Your task to perform on an android device: clear all cookies in the chrome app Image 0: 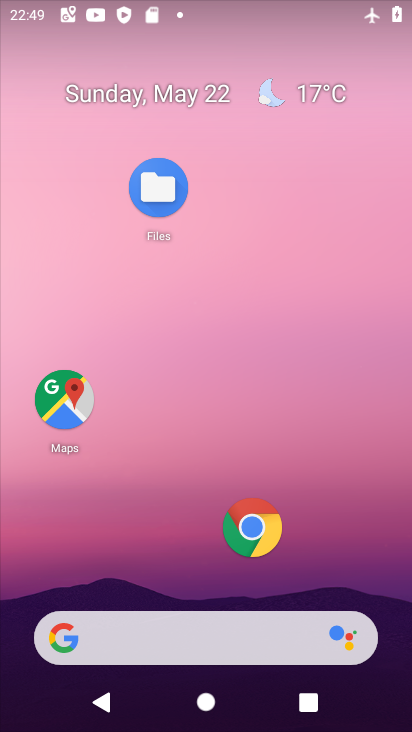
Step 0: click (256, 524)
Your task to perform on an android device: clear all cookies in the chrome app Image 1: 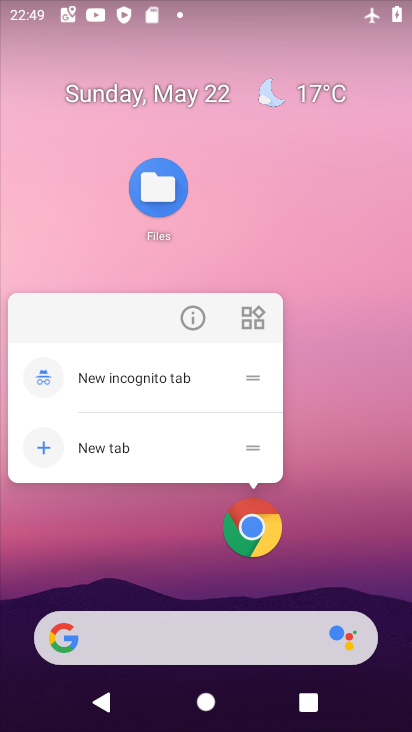
Step 1: click (341, 426)
Your task to perform on an android device: clear all cookies in the chrome app Image 2: 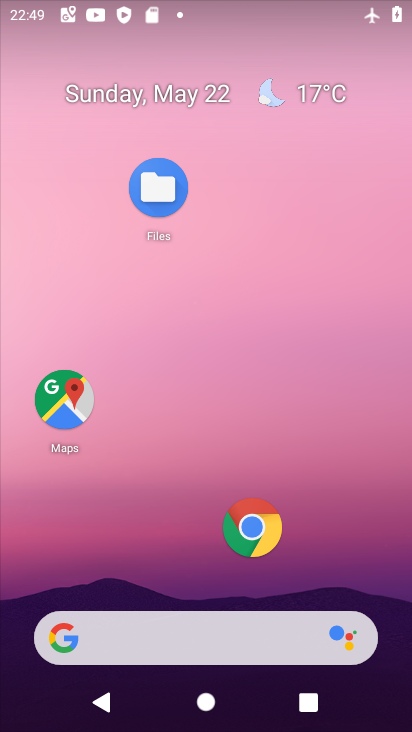
Step 2: click (254, 525)
Your task to perform on an android device: clear all cookies in the chrome app Image 3: 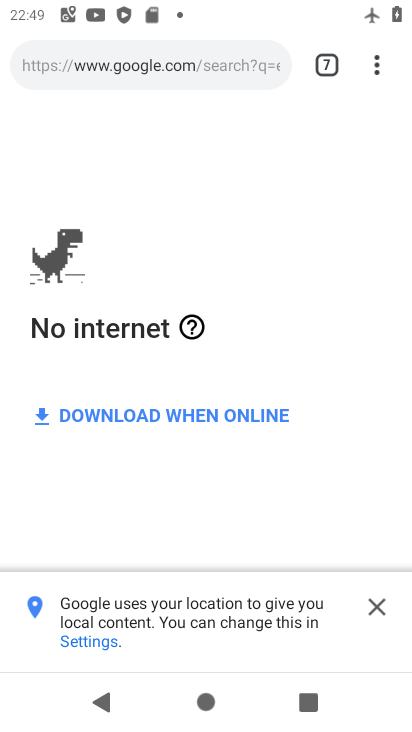
Step 3: click (371, 64)
Your task to perform on an android device: clear all cookies in the chrome app Image 4: 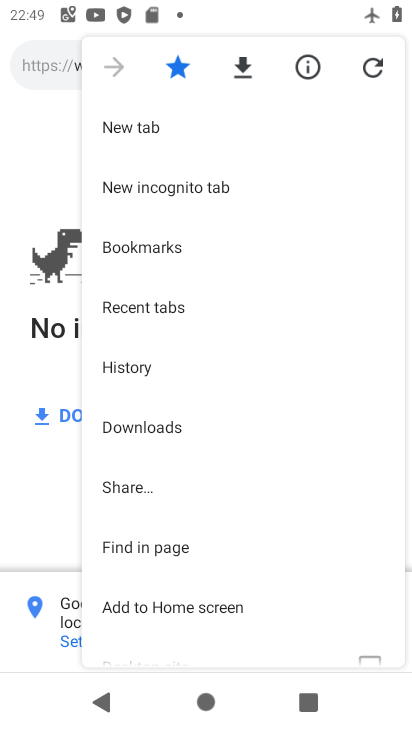
Step 4: click (131, 354)
Your task to perform on an android device: clear all cookies in the chrome app Image 5: 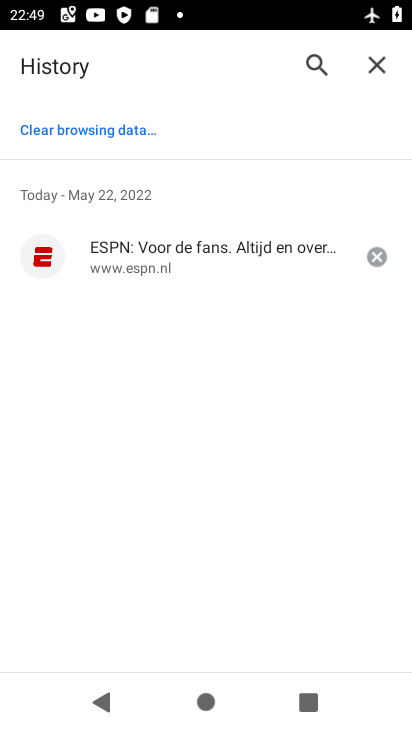
Step 5: click (84, 123)
Your task to perform on an android device: clear all cookies in the chrome app Image 6: 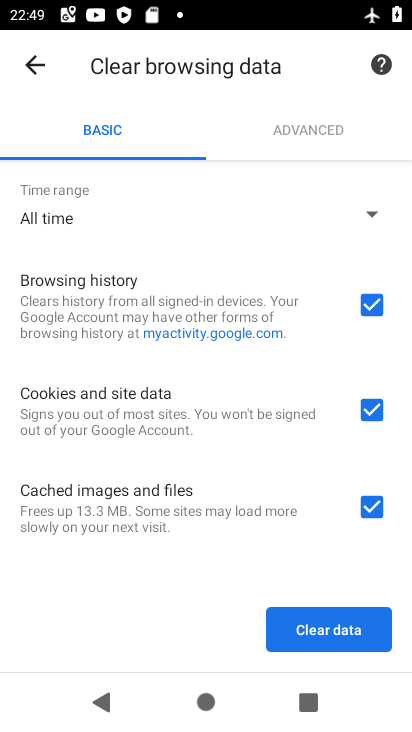
Step 6: click (374, 302)
Your task to perform on an android device: clear all cookies in the chrome app Image 7: 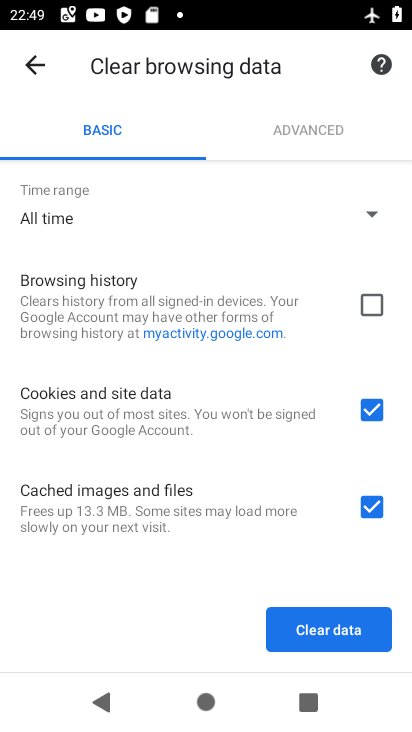
Step 7: click (369, 504)
Your task to perform on an android device: clear all cookies in the chrome app Image 8: 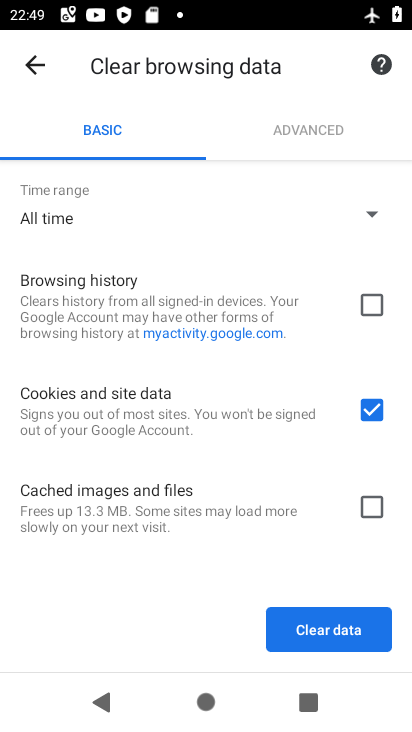
Step 8: click (336, 632)
Your task to perform on an android device: clear all cookies in the chrome app Image 9: 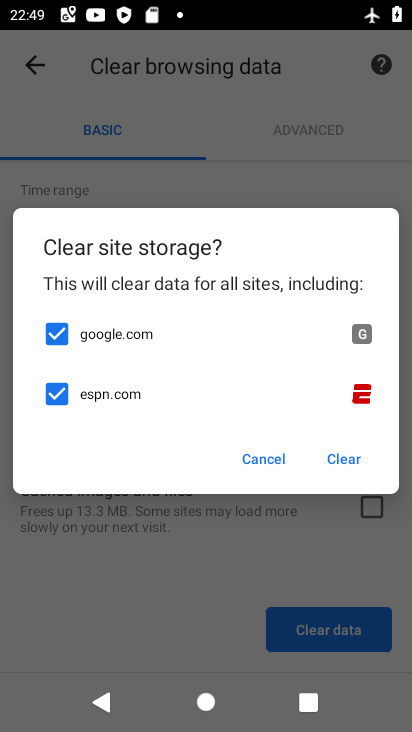
Step 9: click (348, 464)
Your task to perform on an android device: clear all cookies in the chrome app Image 10: 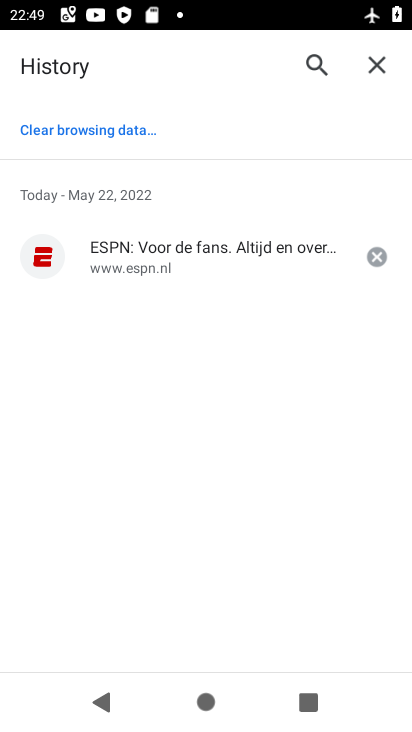
Step 10: task complete